Your task to perform on an android device: Do I have any events tomorrow? Image 0: 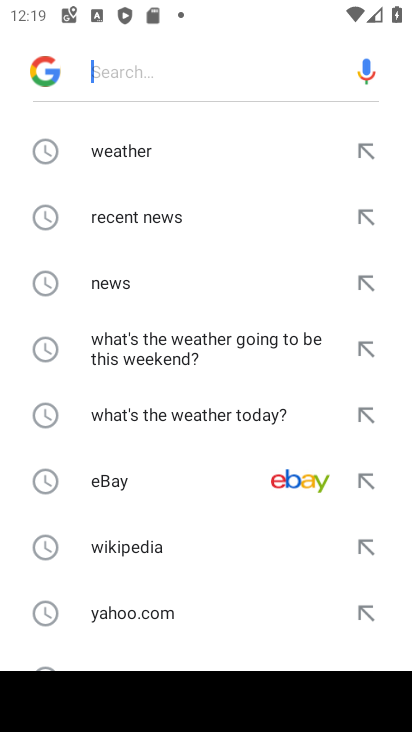
Step 0: press home button
Your task to perform on an android device: Do I have any events tomorrow? Image 1: 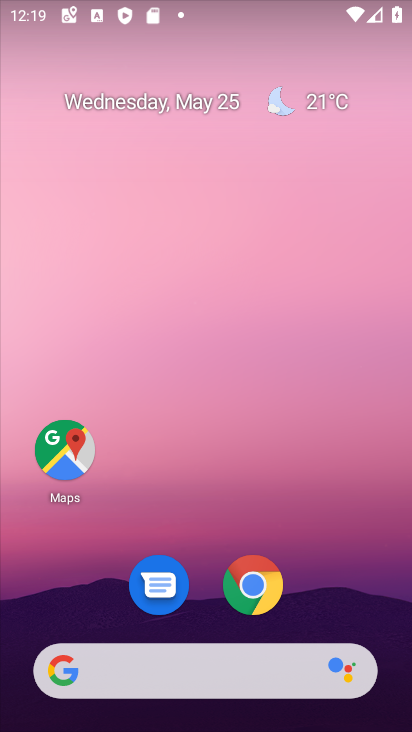
Step 1: drag from (203, 491) to (290, 18)
Your task to perform on an android device: Do I have any events tomorrow? Image 2: 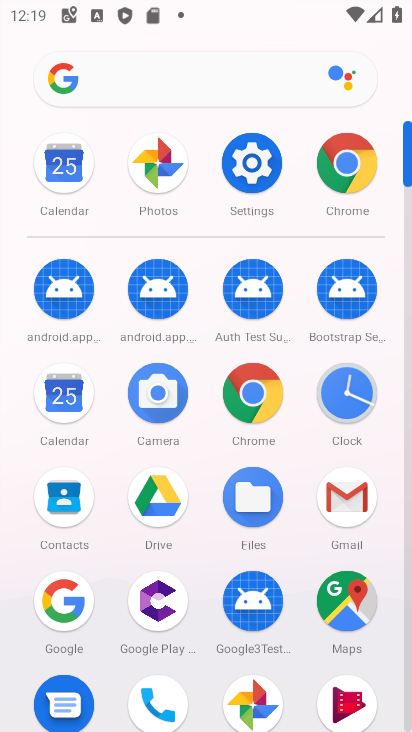
Step 2: click (70, 161)
Your task to perform on an android device: Do I have any events tomorrow? Image 3: 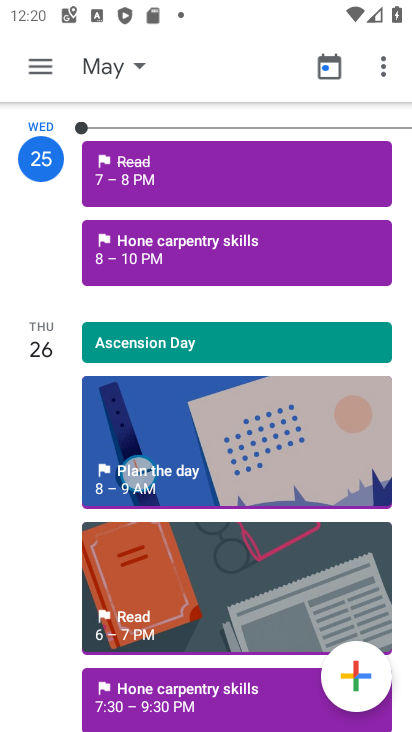
Step 3: task complete